Your task to perform on an android device: Go to Maps Image 0: 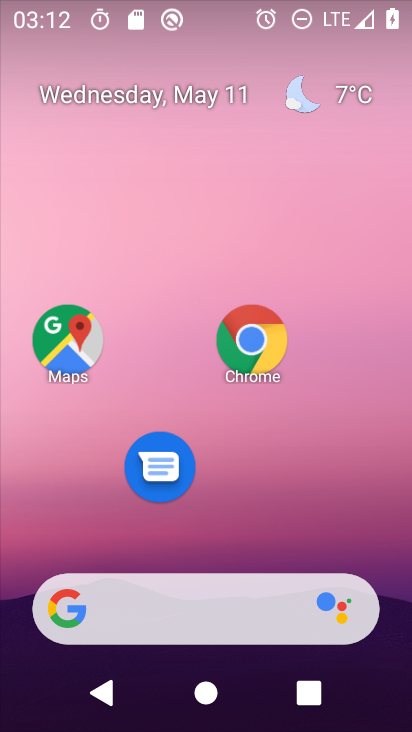
Step 0: click (65, 351)
Your task to perform on an android device: Go to Maps Image 1: 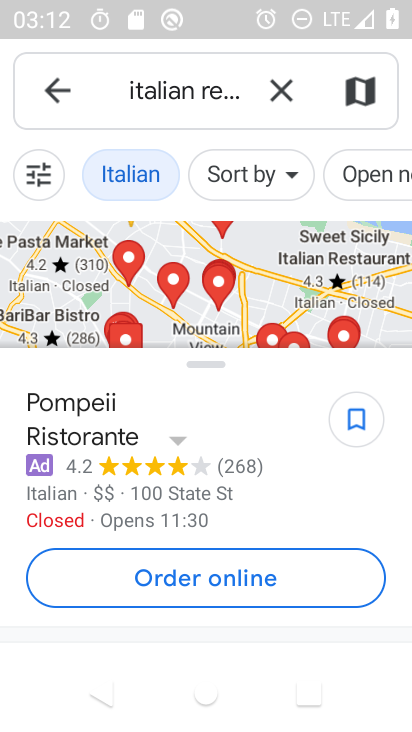
Step 1: click (64, 94)
Your task to perform on an android device: Go to Maps Image 2: 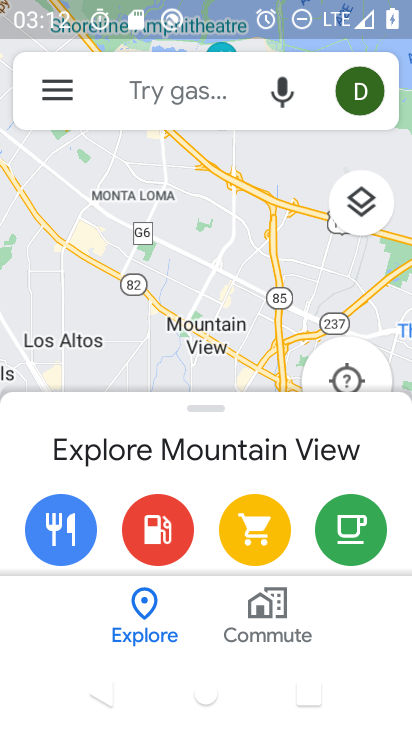
Step 2: task complete